Your task to perform on an android device: Open settings on Google Maps Image 0: 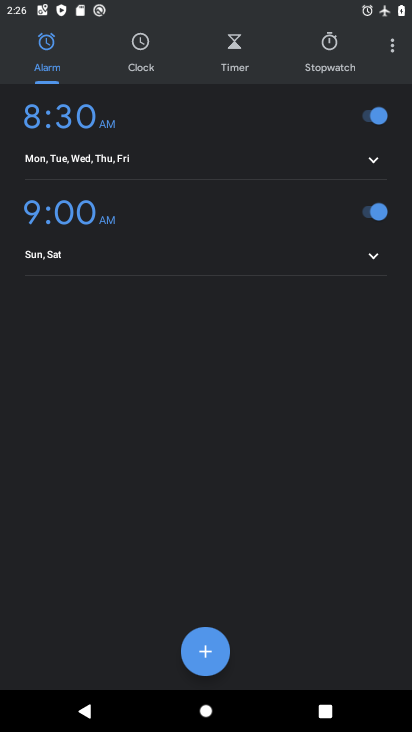
Step 0: press home button
Your task to perform on an android device: Open settings on Google Maps Image 1: 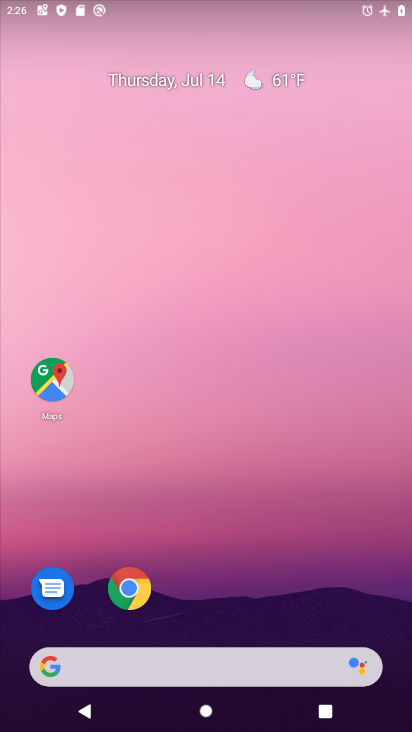
Step 1: click (55, 379)
Your task to perform on an android device: Open settings on Google Maps Image 2: 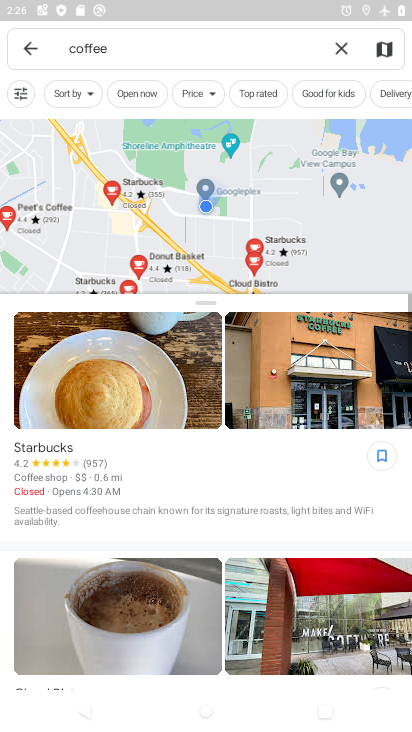
Step 2: click (345, 43)
Your task to perform on an android device: Open settings on Google Maps Image 3: 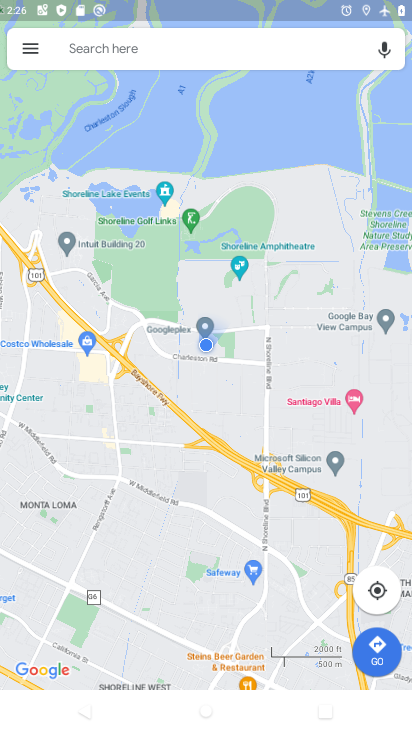
Step 3: click (19, 42)
Your task to perform on an android device: Open settings on Google Maps Image 4: 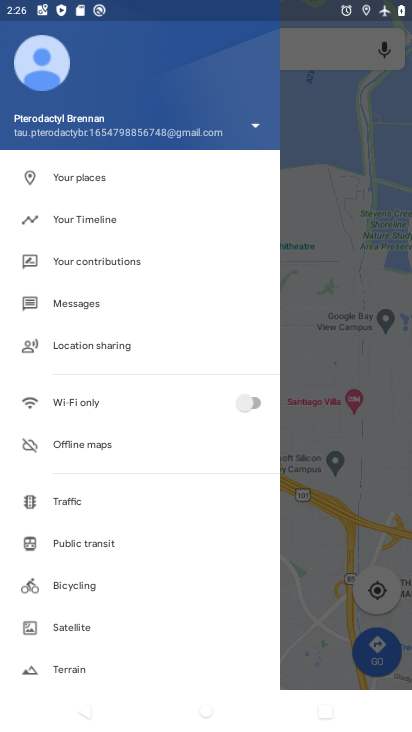
Step 4: drag from (95, 636) to (85, 246)
Your task to perform on an android device: Open settings on Google Maps Image 5: 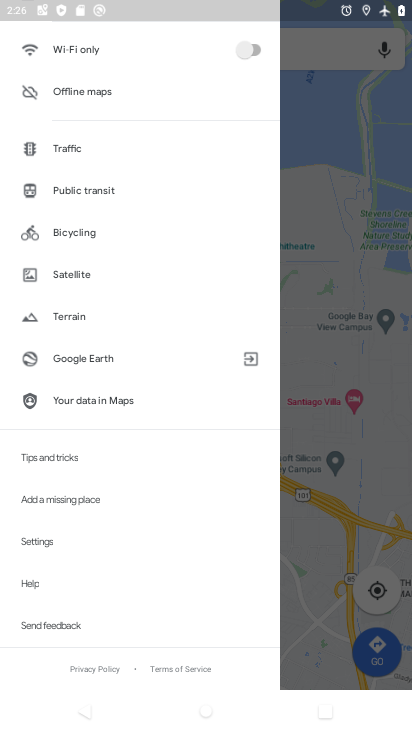
Step 5: click (57, 541)
Your task to perform on an android device: Open settings on Google Maps Image 6: 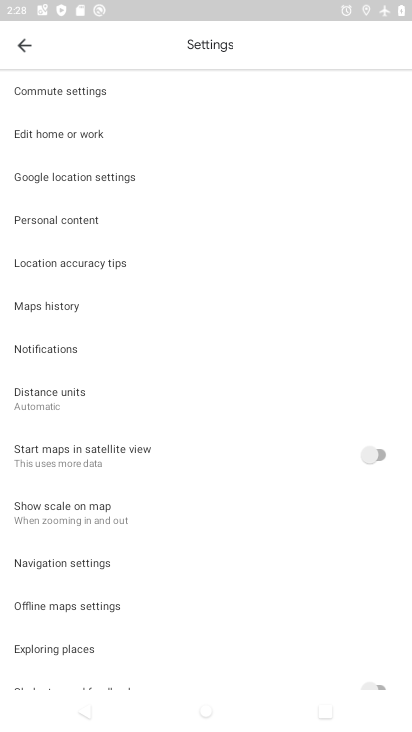
Step 6: task complete